Your task to perform on an android device: Open Google Chrome Image 0: 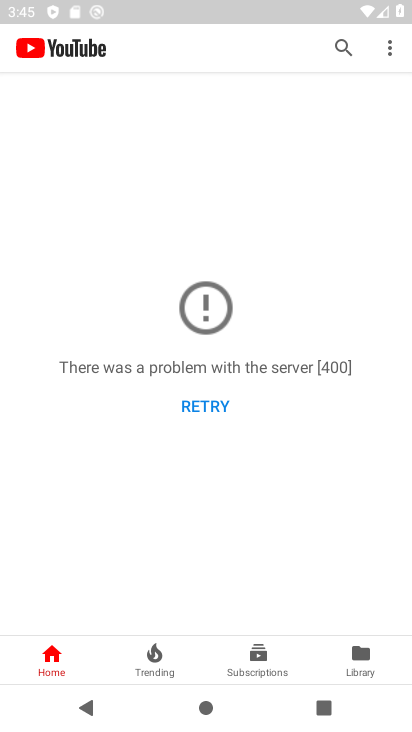
Step 0: press home button
Your task to perform on an android device: Open Google Chrome Image 1: 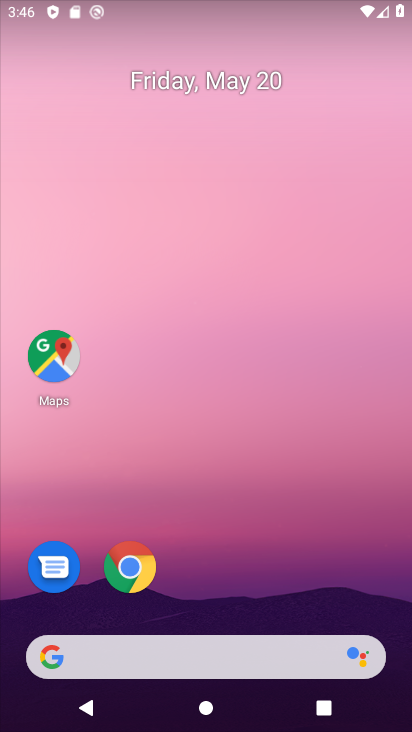
Step 1: click (131, 574)
Your task to perform on an android device: Open Google Chrome Image 2: 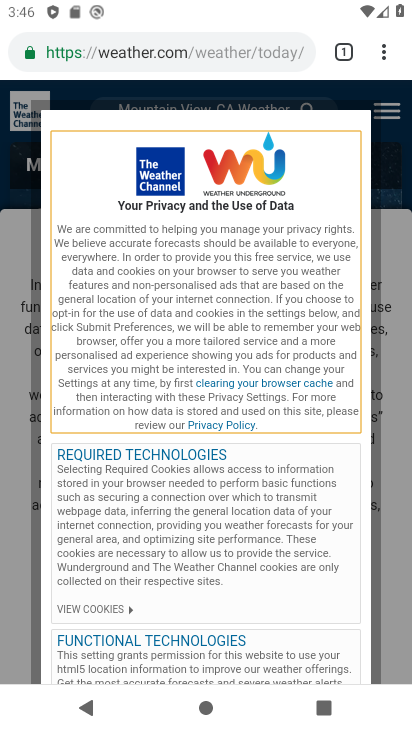
Step 2: task complete